Your task to perform on an android device: turn on the 24-hour format for clock Image 0: 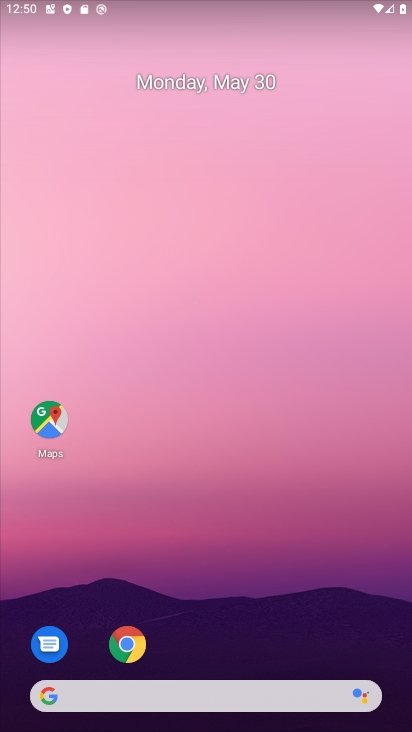
Step 0: drag from (237, 622) to (235, 314)
Your task to perform on an android device: turn on the 24-hour format for clock Image 1: 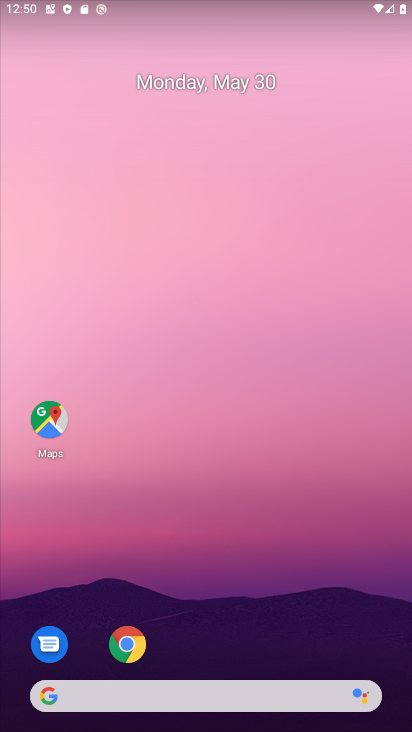
Step 1: drag from (246, 658) to (247, 298)
Your task to perform on an android device: turn on the 24-hour format for clock Image 2: 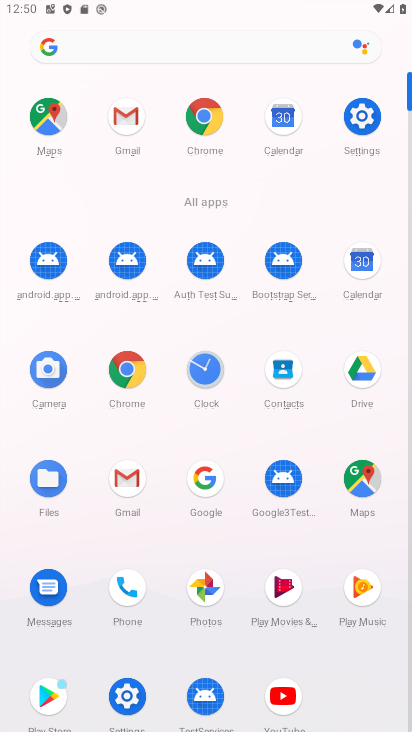
Step 2: click (215, 382)
Your task to perform on an android device: turn on the 24-hour format for clock Image 3: 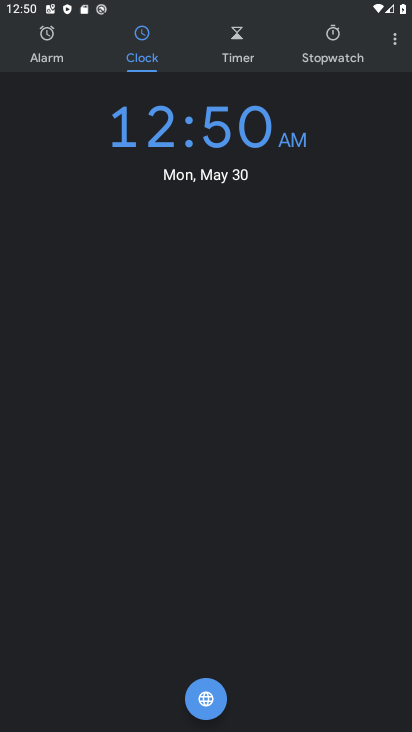
Step 3: click (393, 48)
Your task to perform on an android device: turn on the 24-hour format for clock Image 4: 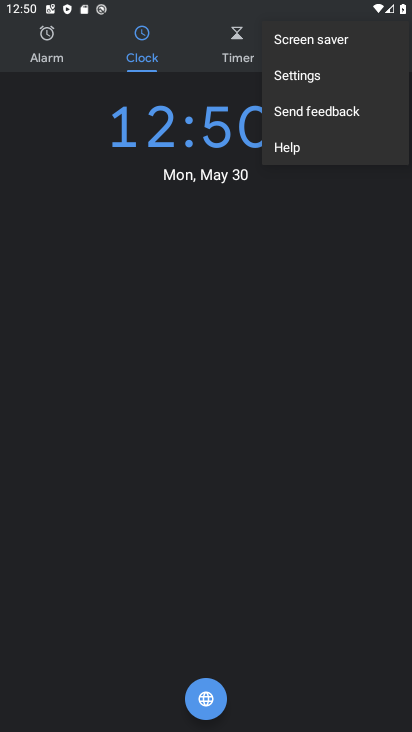
Step 4: click (336, 73)
Your task to perform on an android device: turn on the 24-hour format for clock Image 5: 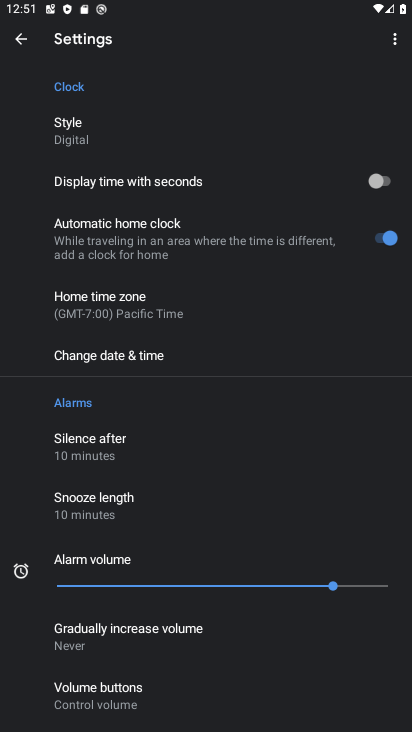
Step 5: click (221, 340)
Your task to perform on an android device: turn on the 24-hour format for clock Image 6: 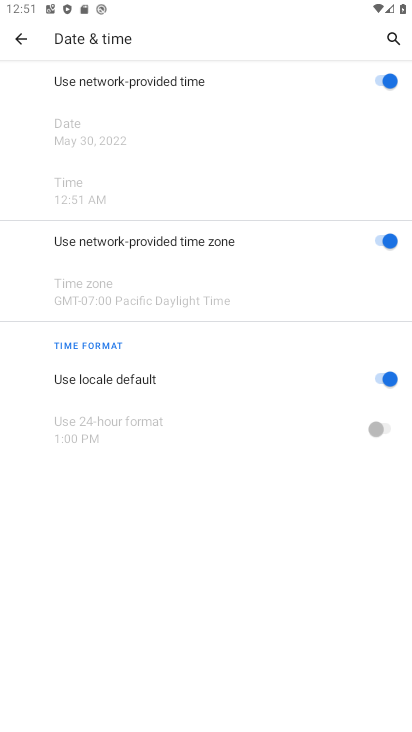
Step 6: click (393, 388)
Your task to perform on an android device: turn on the 24-hour format for clock Image 7: 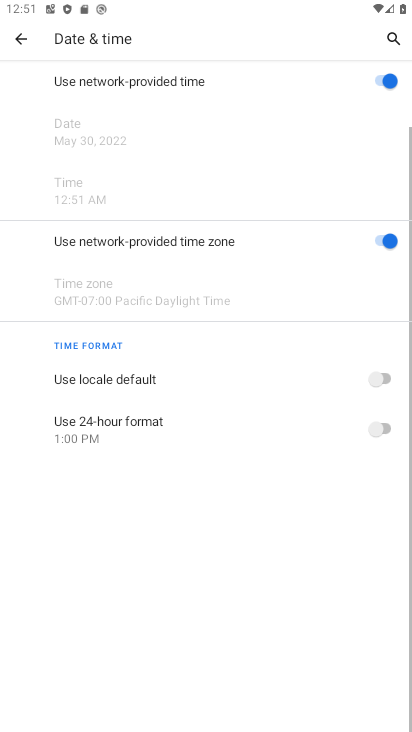
Step 7: click (390, 429)
Your task to perform on an android device: turn on the 24-hour format for clock Image 8: 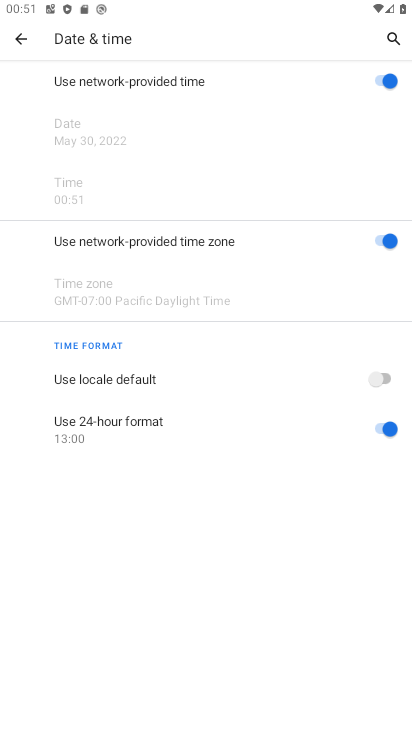
Step 8: task complete